Your task to perform on an android device: Open settings Image 0: 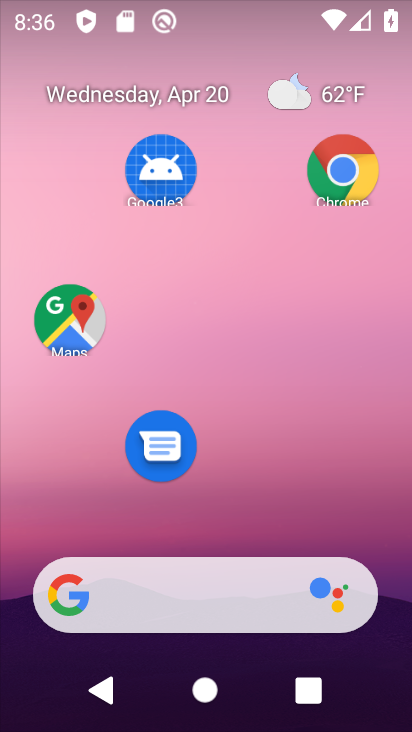
Step 0: drag from (238, 505) to (249, 32)
Your task to perform on an android device: Open settings Image 1: 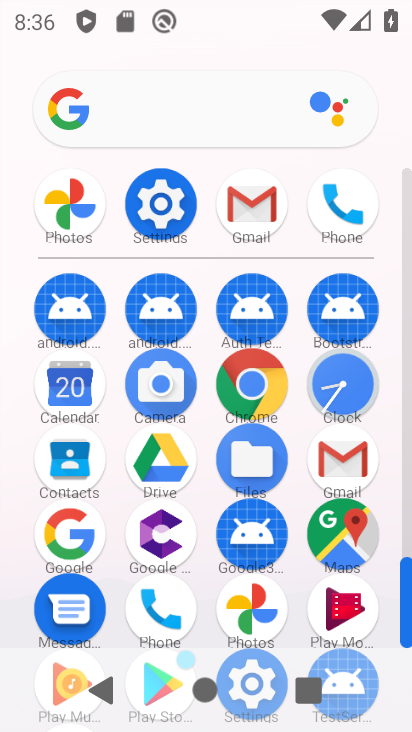
Step 1: click (169, 204)
Your task to perform on an android device: Open settings Image 2: 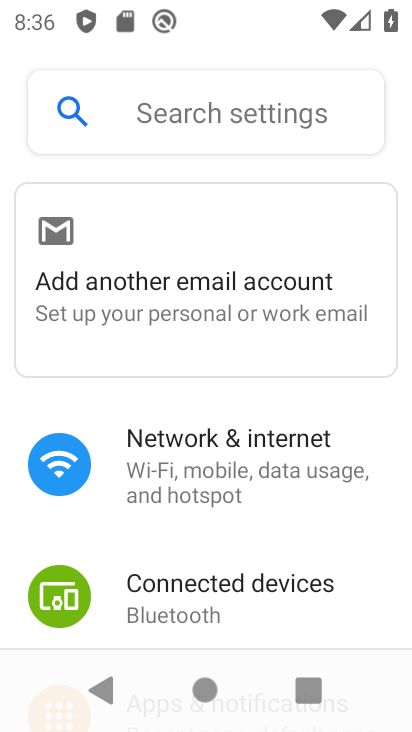
Step 2: task complete